Your task to perform on an android device: Go to Reddit.com Image 0: 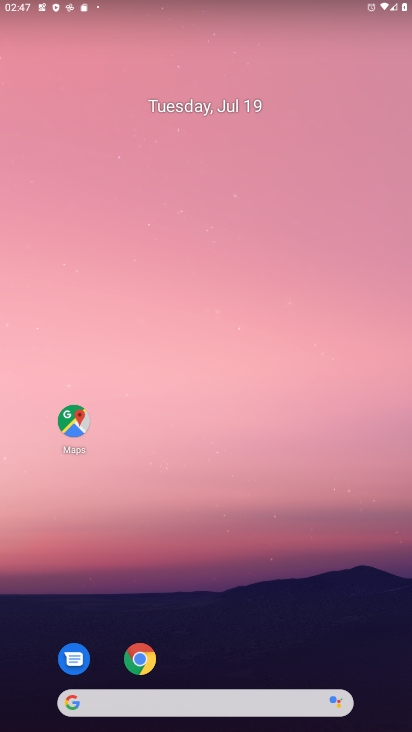
Step 0: press home button
Your task to perform on an android device: Go to Reddit.com Image 1: 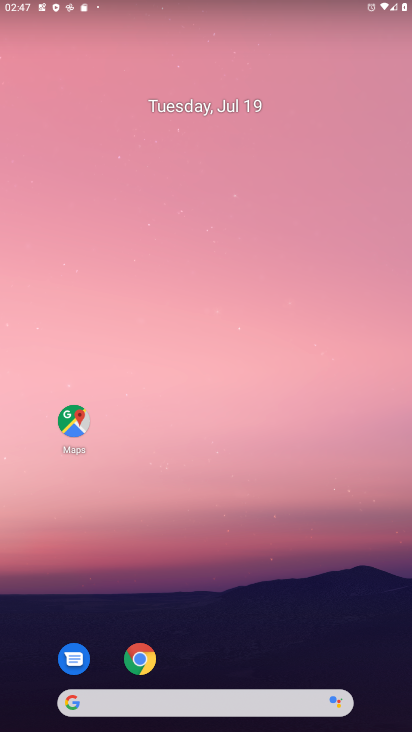
Step 1: drag from (325, 646) to (286, 28)
Your task to perform on an android device: Go to Reddit.com Image 2: 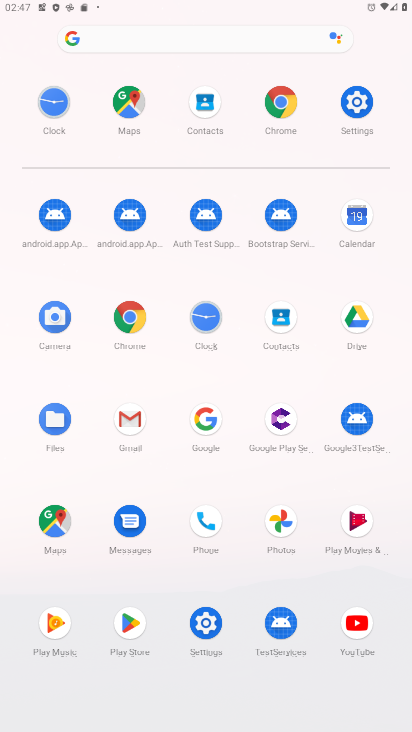
Step 2: click (118, 297)
Your task to perform on an android device: Go to Reddit.com Image 3: 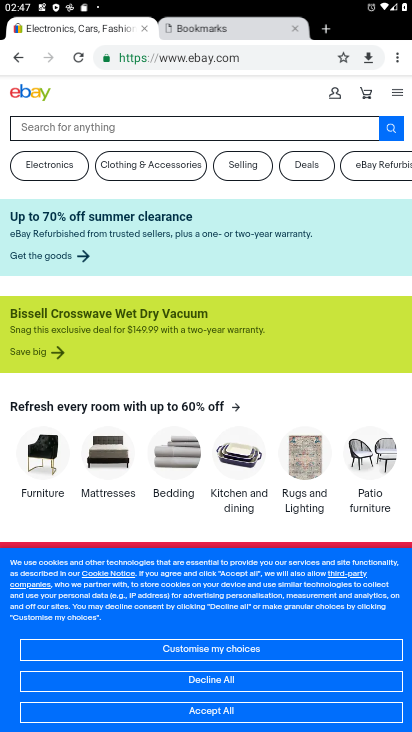
Step 3: click (137, 58)
Your task to perform on an android device: Go to Reddit.com Image 4: 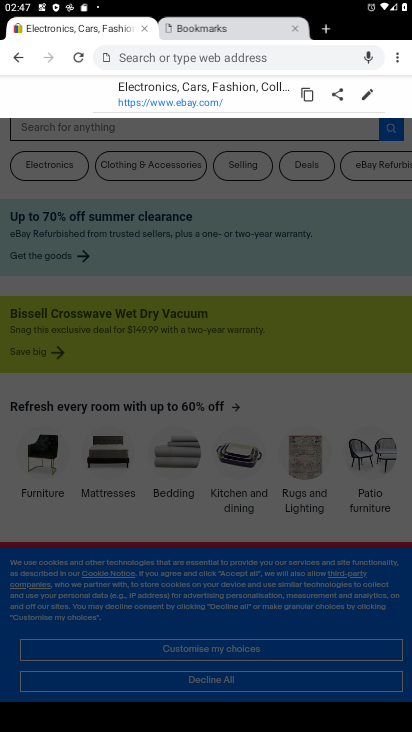
Step 4: type "Reddit.com"
Your task to perform on an android device: Go to Reddit.com Image 5: 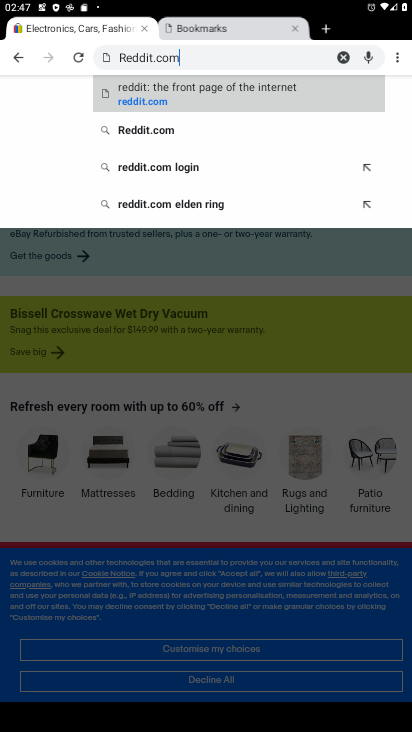
Step 5: click (131, 84)
Your task to perform on an android device: Go to Reddit.com Image 6: 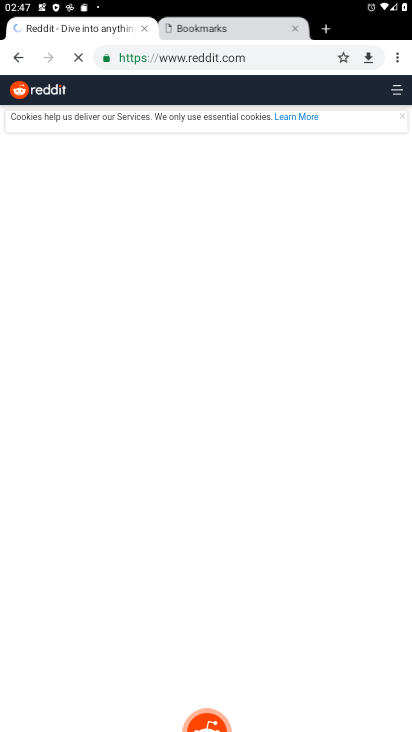
Step 6: task complete